Your task to perform on an android device: Open calendar and show me the first week of next month Image 0: 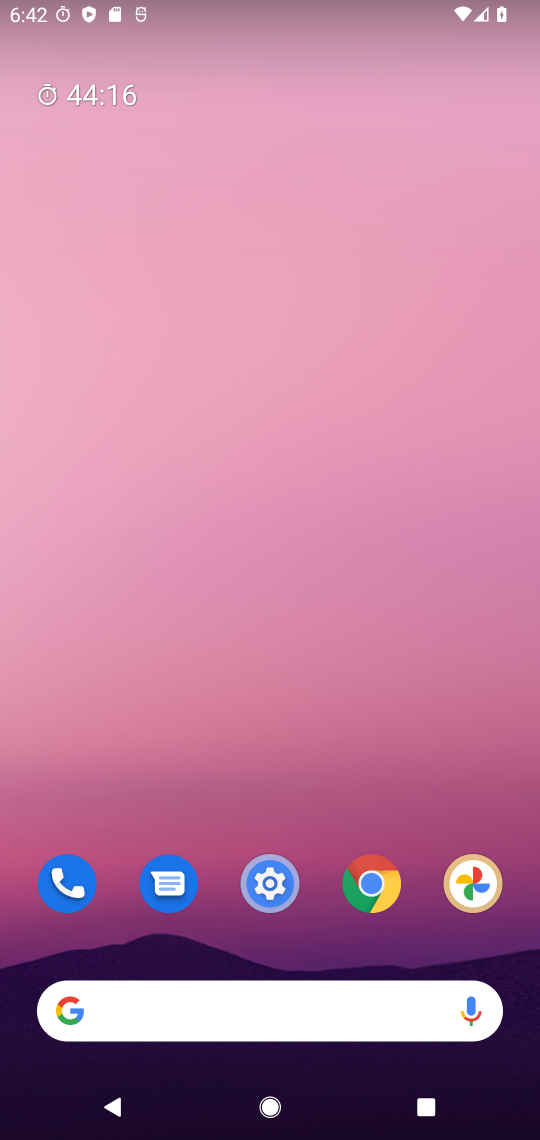
Step 0: drag from (298, 647) to (298, 175)
Your task to perform on an android device: Open calendar and show me the first week of next month Image 1: 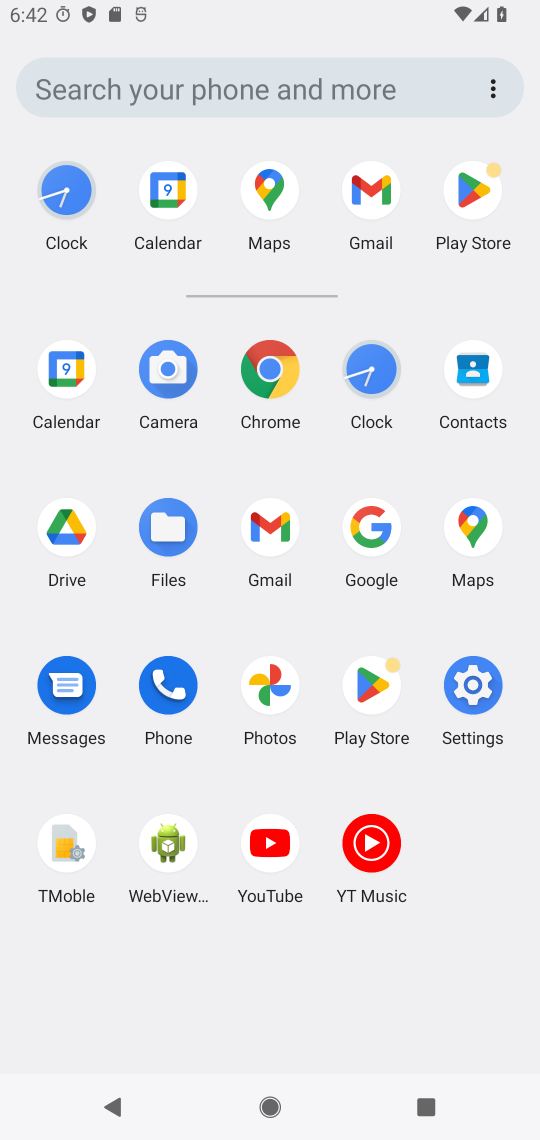
Step 1: click (65, 414)
Your task to perform on an android device: Open calendar and show me the first week of next month Image 2: 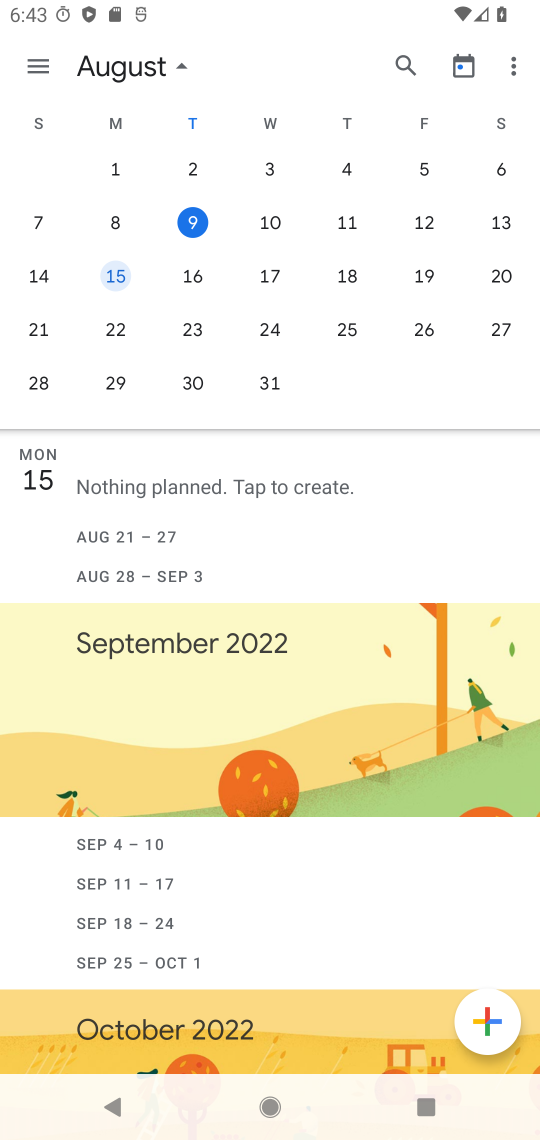
Step 2: click (114, 163)
Your task to perform on an android device: Open calendar and show me the first week of next month Image 3: 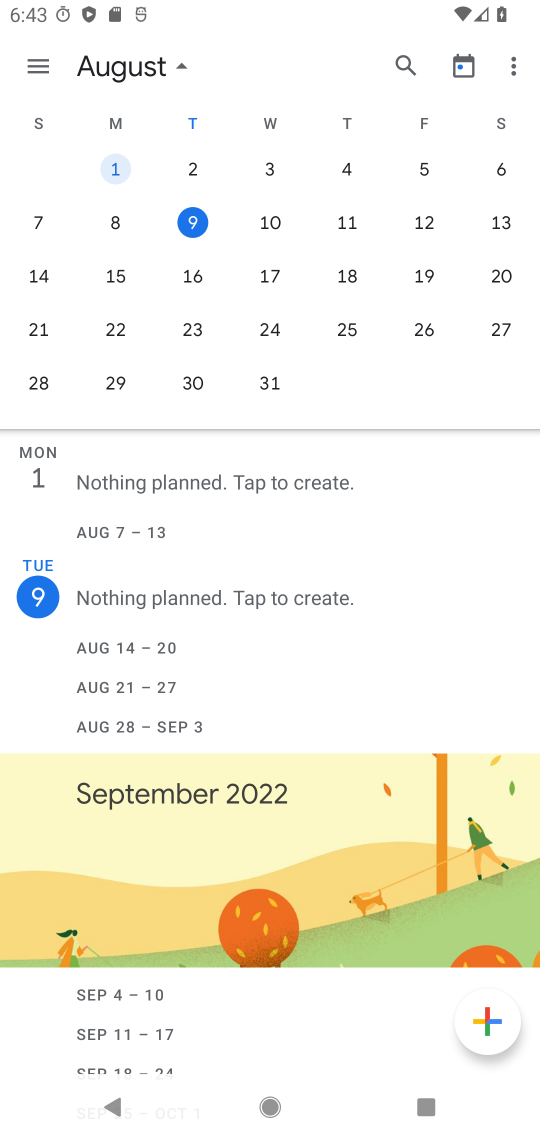
Step 3: drag from (456, 224) to (13, 270)
Your task to perform on an android device: Open calendar and show me the first week of next month Image 4: 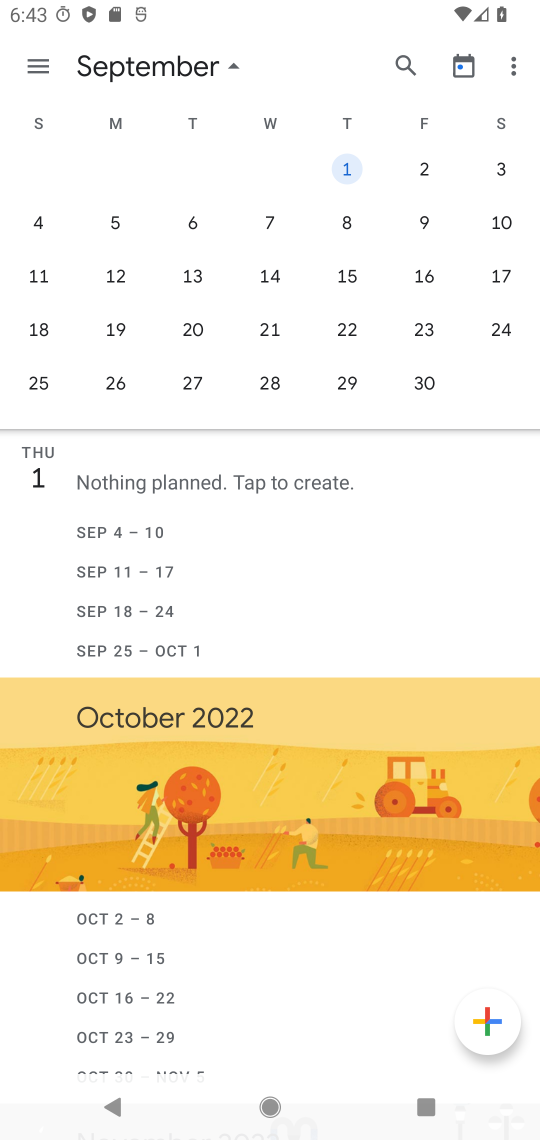
Step 4: click (348, 182)
Your task to perform on an android device: Open calendar and show me the first week of next month Image 5: 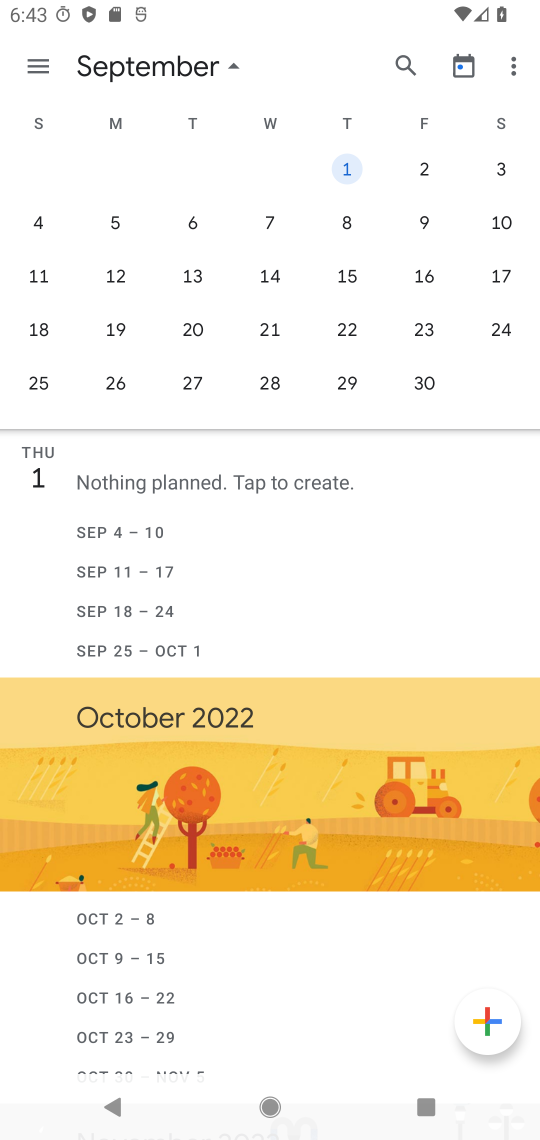
Step 5: click (363, 162)
Your task to perform on an android device: Open calendar and show me the first week of next month Image 6: 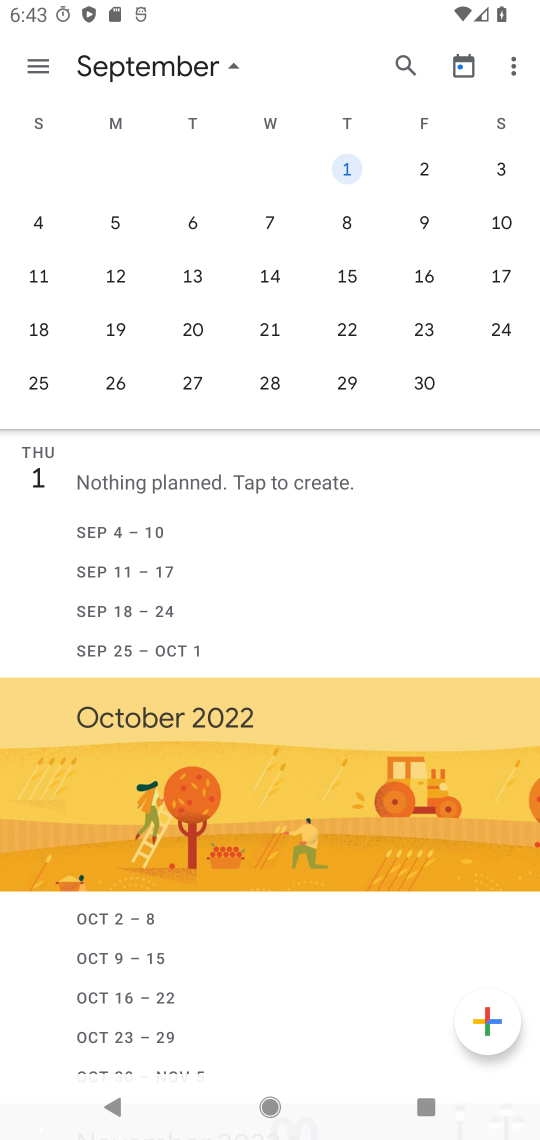
Step 6: task complete